Your task to perform on an android device: Look up the best rated bike seats on Target Image 0: 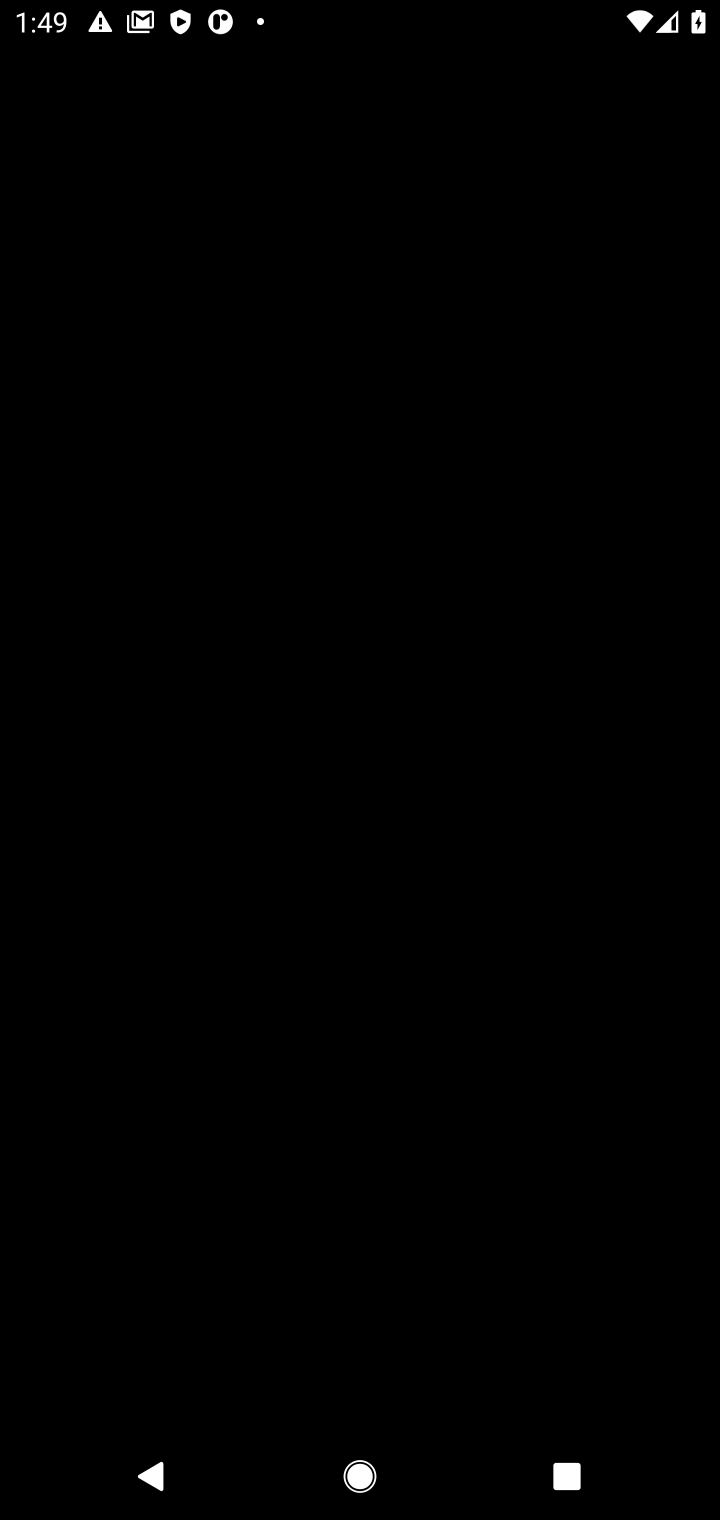
Step 0: press home button
Your task to perform on an android device: Look up the best rated bike seats on Target Image 1: 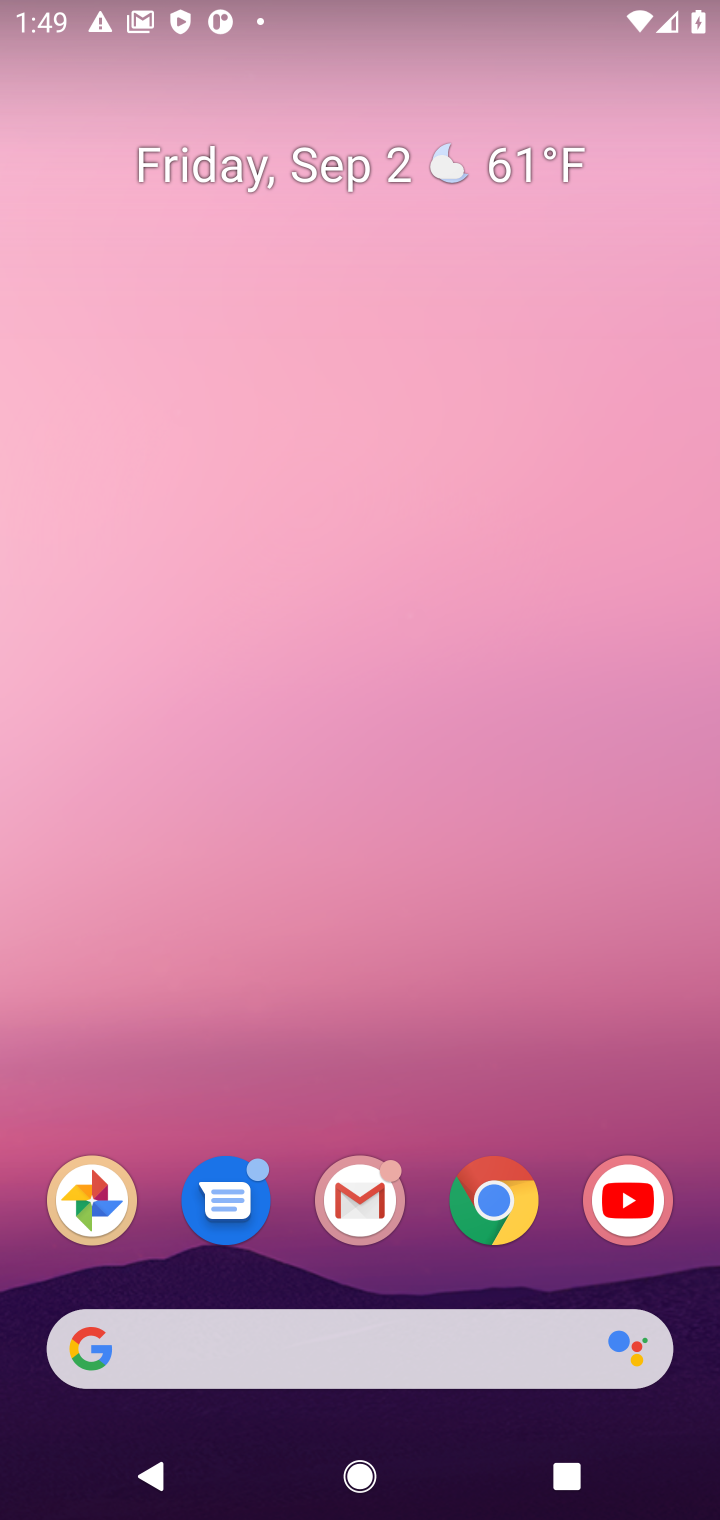
Step 1: click (493, 1197)
Your task to perform on an android device: Look up the best rated bike seats on Target Image 2: 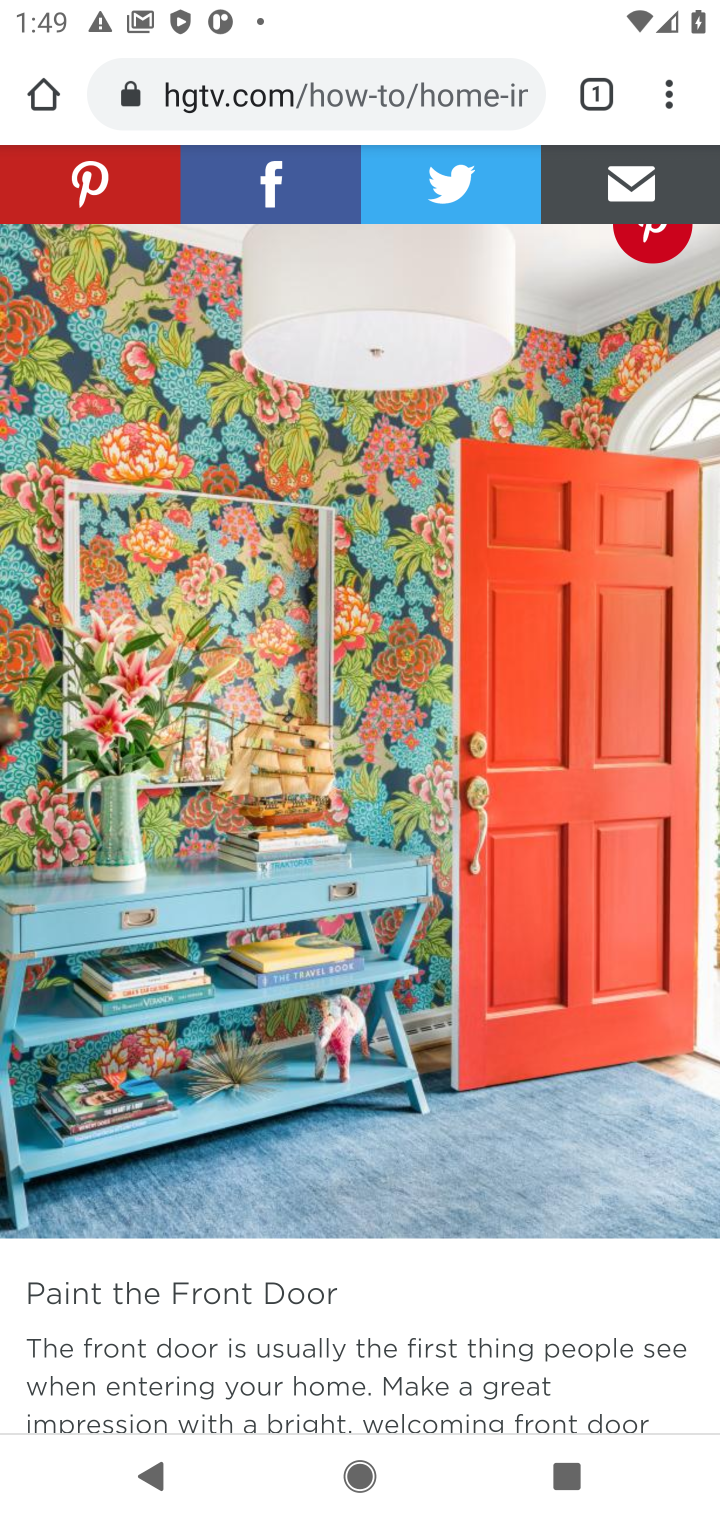
Step 2: drag from (533, 845) to (455, 92)
Your task to perform on an android device: Look up the best rated bike seats on Target Image 3: 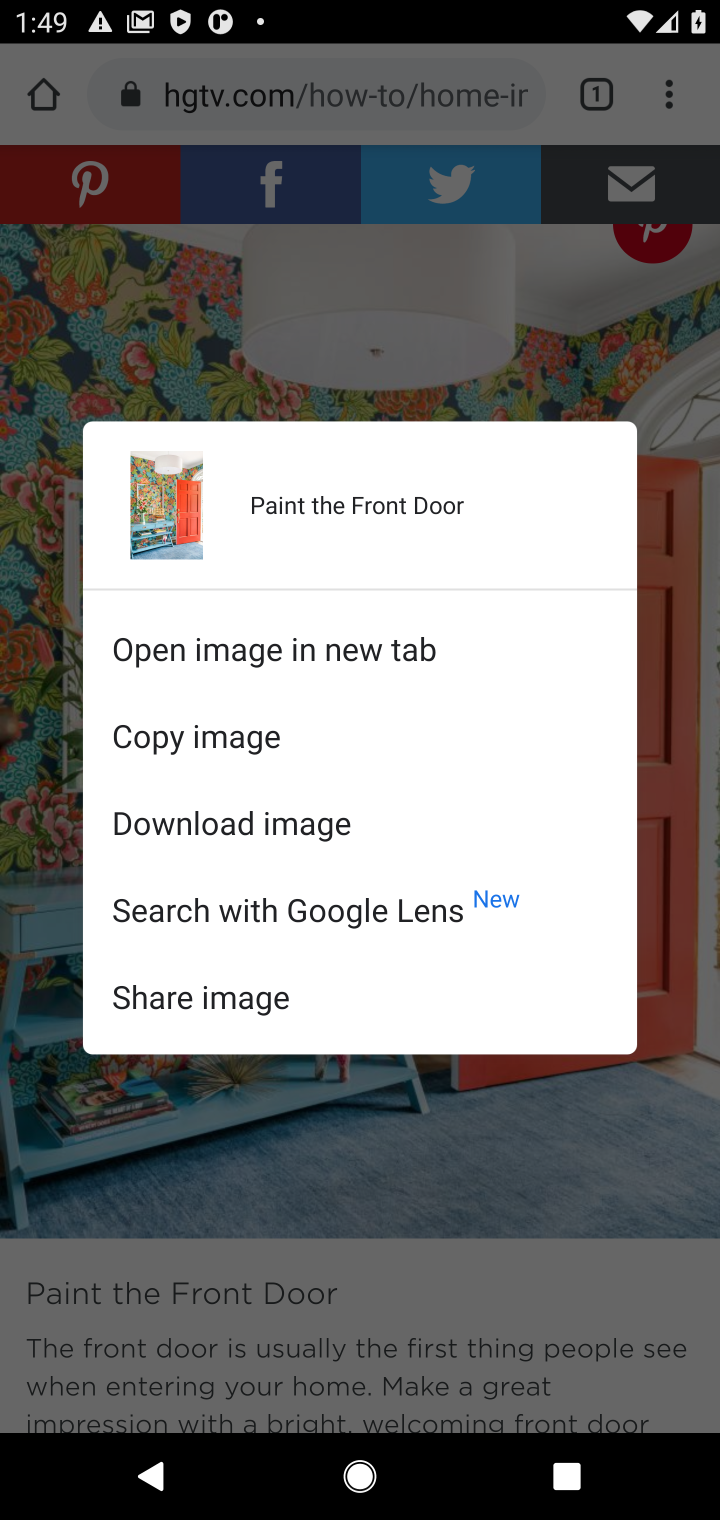
Step 3: click (429, 94)
Your task to perform on an android device: Look up the best rated bike seats on Target Image 4: 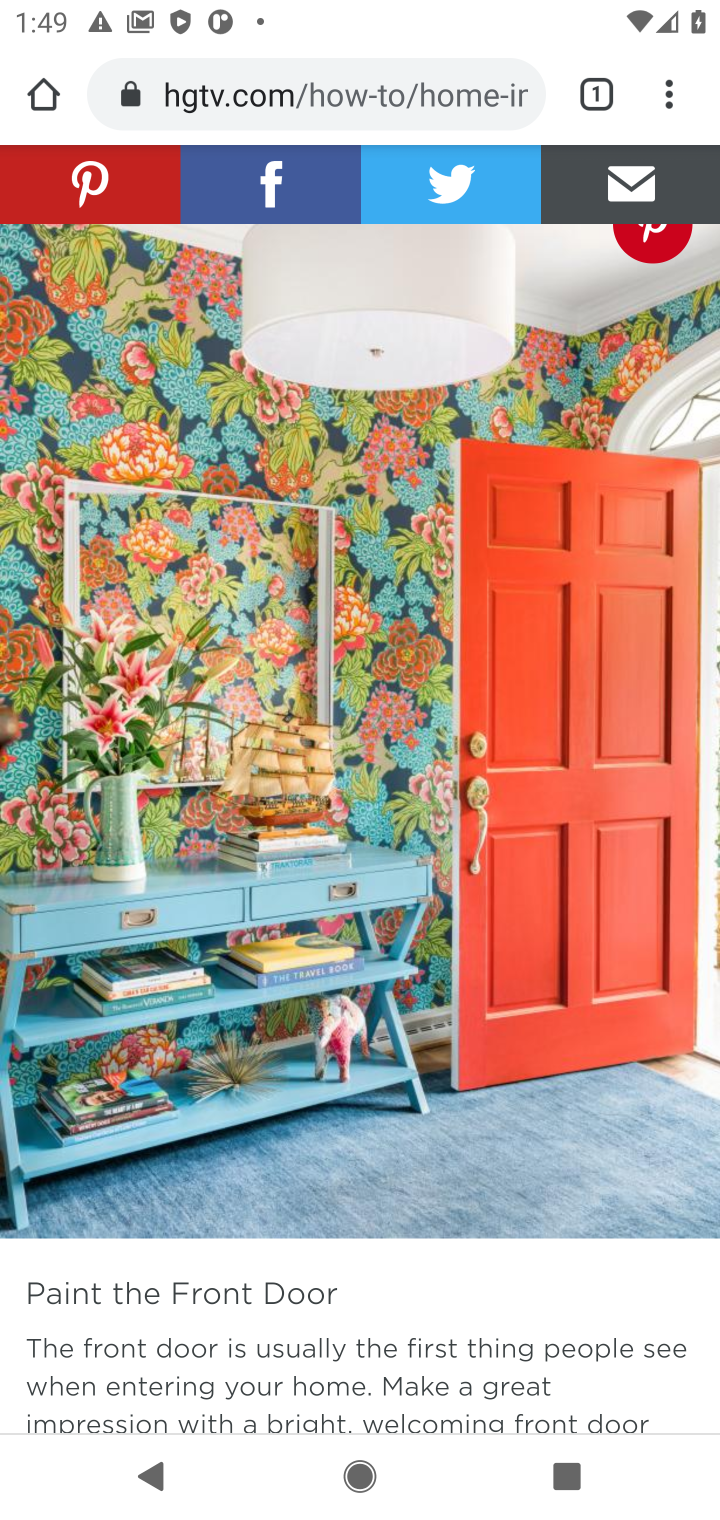
Step 4: click (373, 88)
Your task to perform on an android device: Look up the best rated bike seats on Target Image 5: 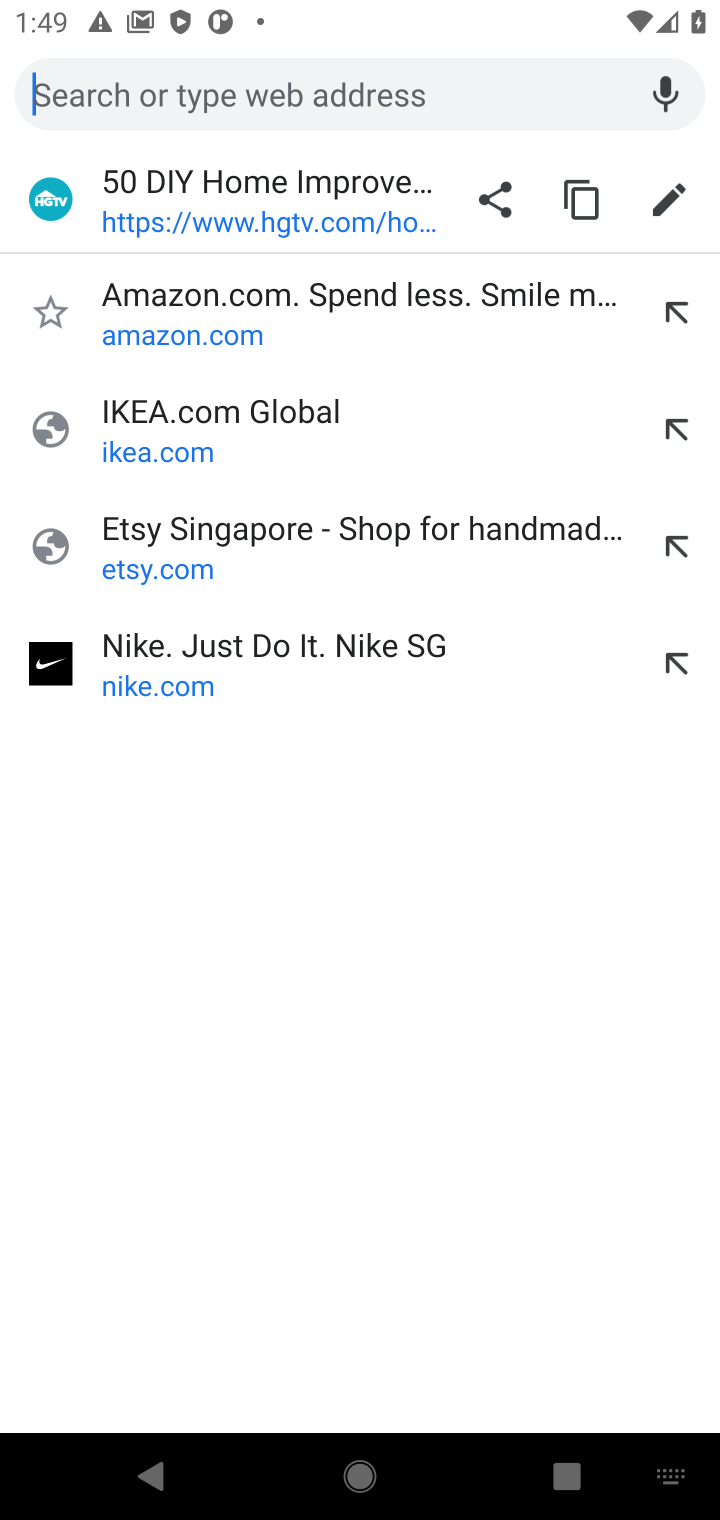
Step 5: click (364, 90)
Your task to perform on an android device: Look up the best rated bike seats on Target Image 6: 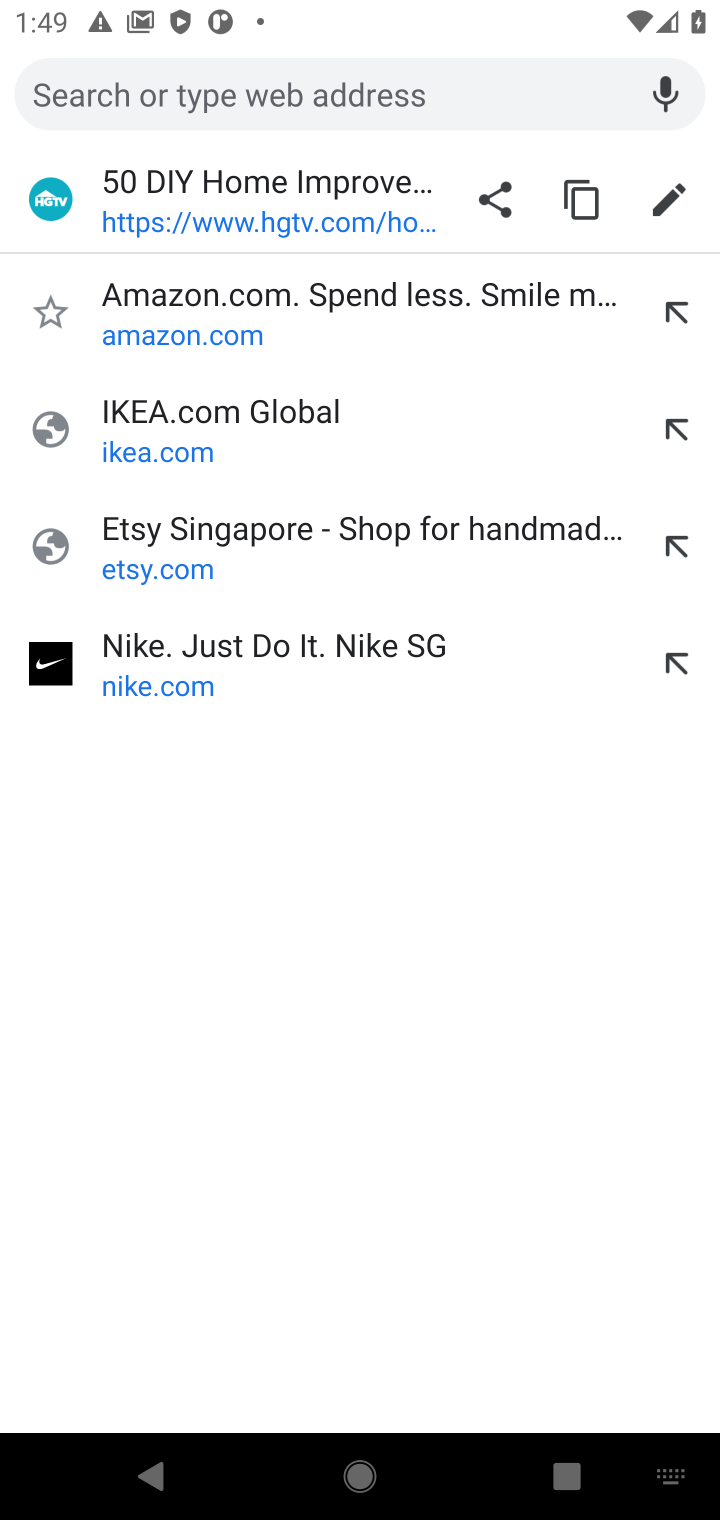
Step 6: type "Target"
Your task to perform on an android device: Look up the best rated bike seats on Target Image 7: 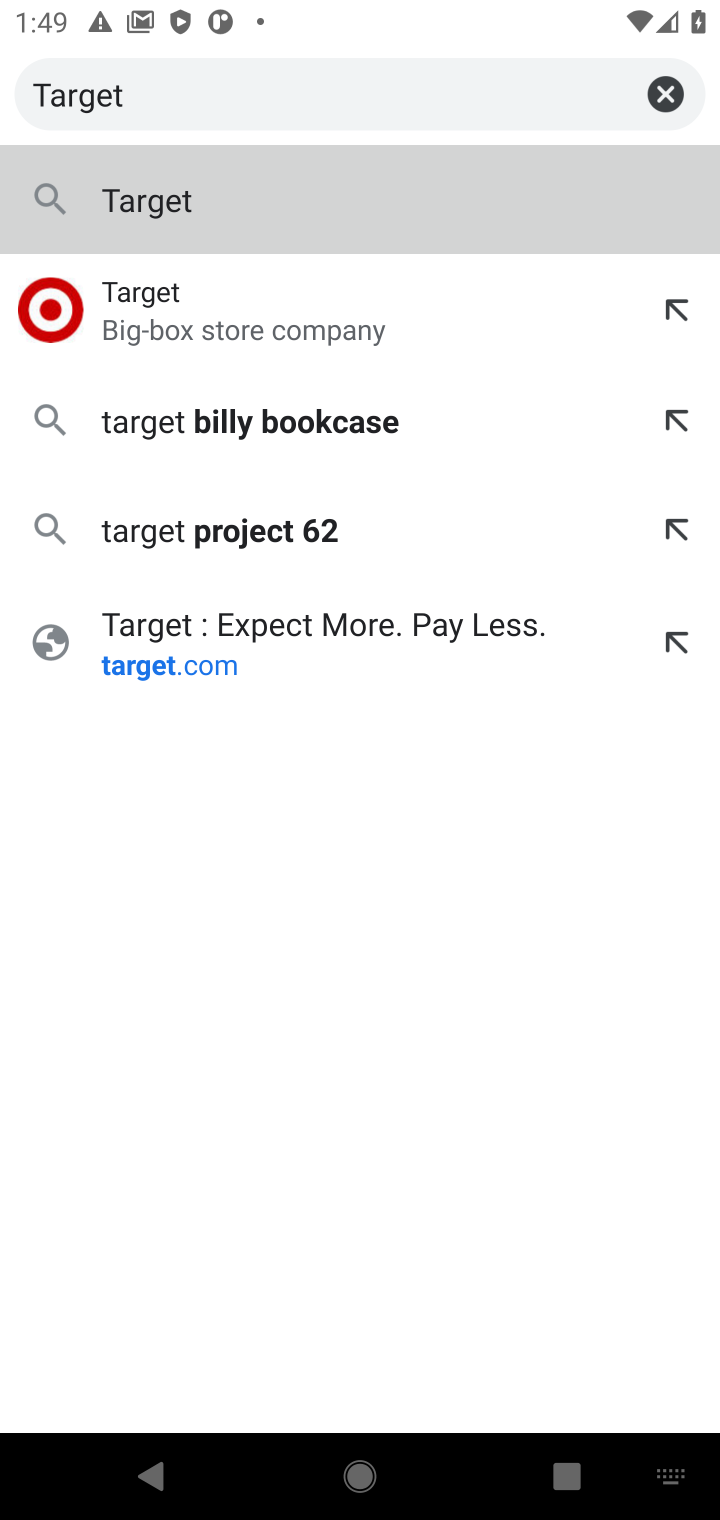
Step 7: press enter
Your task to perform on an android device: Look up the best rated bike seats on Target Image 8: 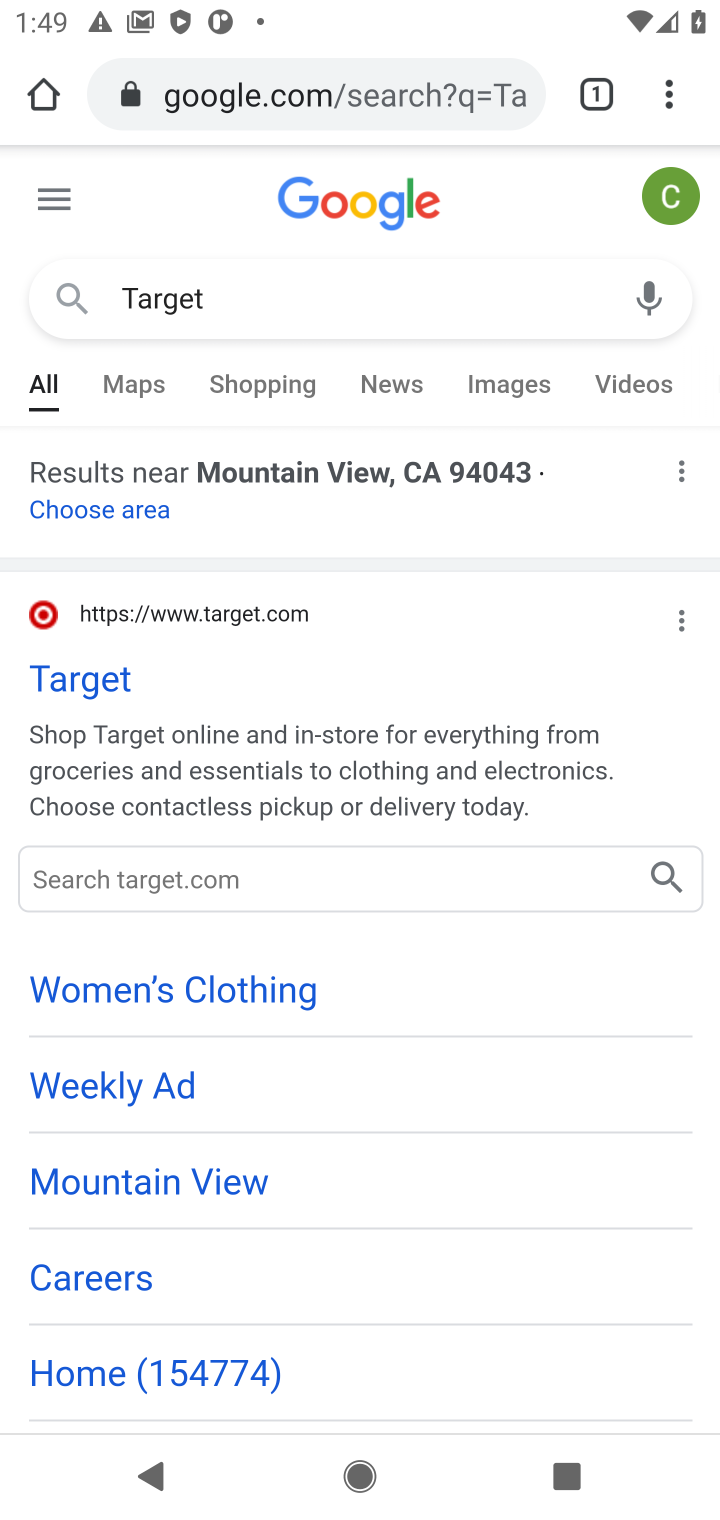
Step 8: click (58, 670)
Your task to perform on an android device: Look up the best rated bike seats on Target Image 9: 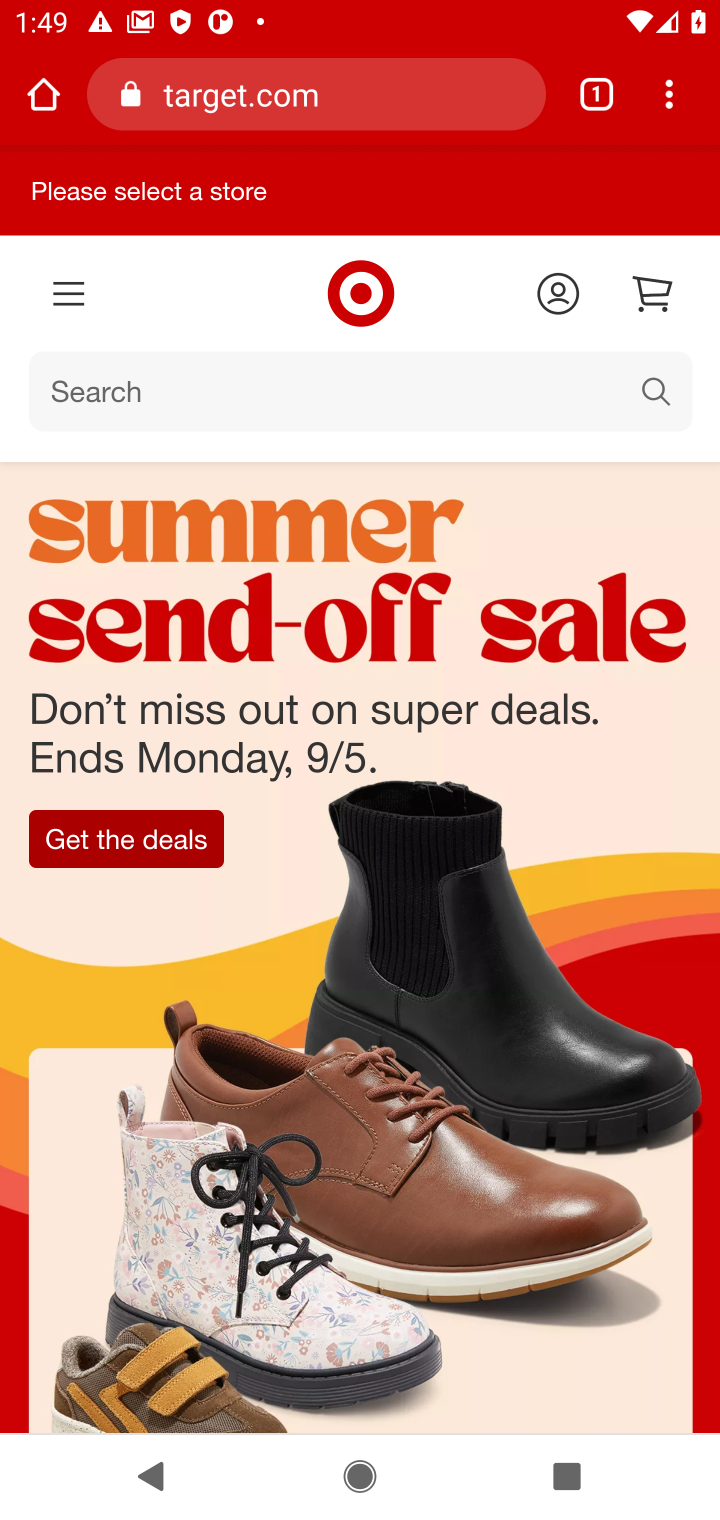
Step 9: click (659, 391)
Your task to perform on an android device: Look up the best rated bike seats on Target Image 10: 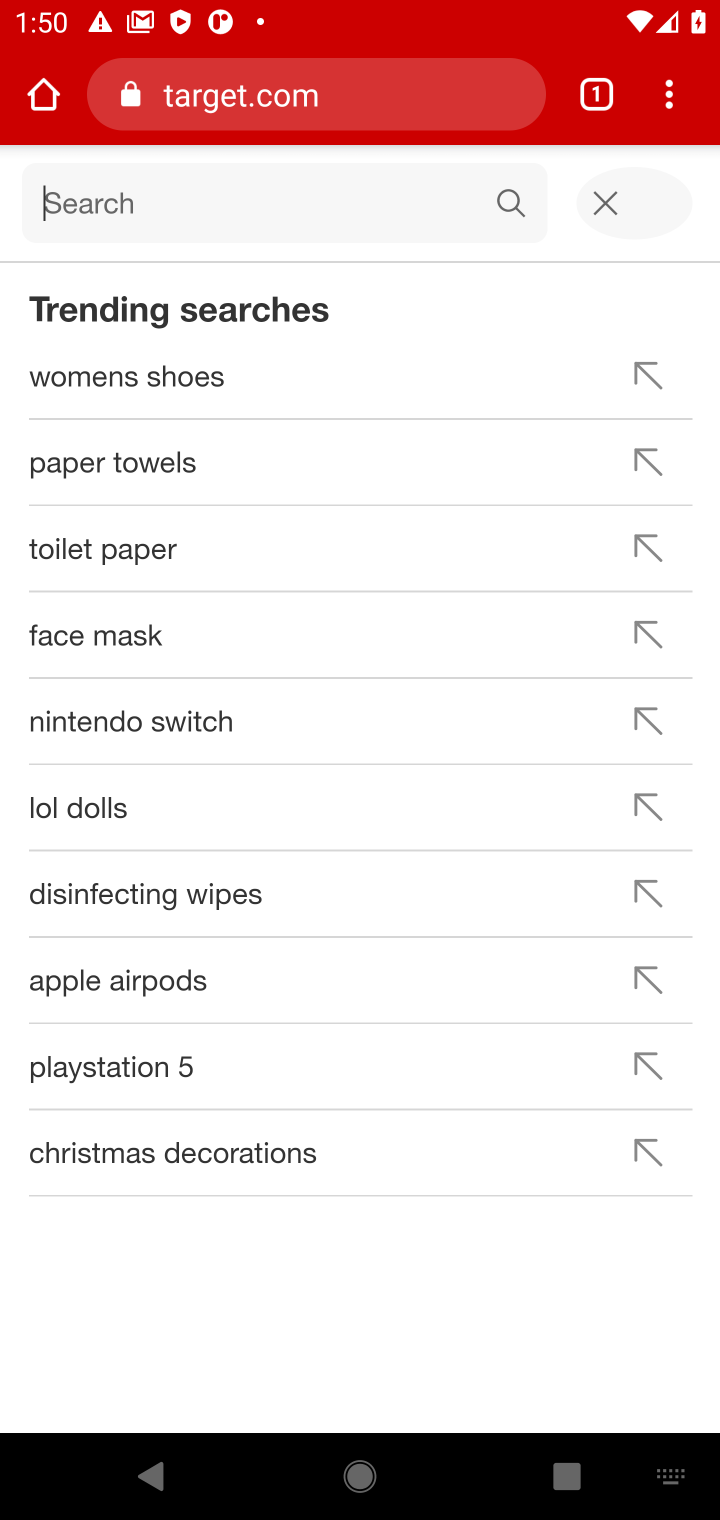
Step 10: type "bike seats"
Your task to perform on an android device: Look up the best rated bike seats on Target Image 11: 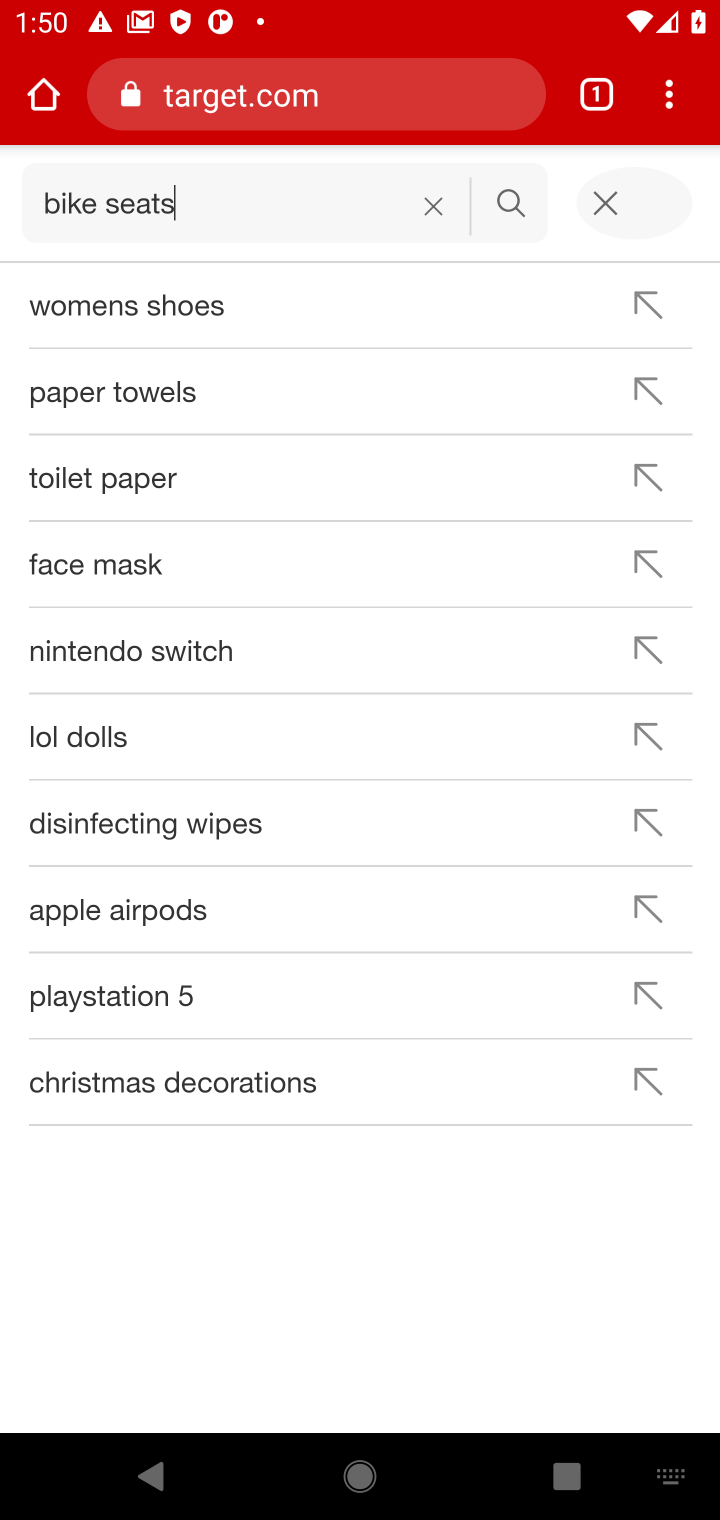
Step 11: press enter
Your task to perform on an android device: Look up the best rated bike seats on Target Image 12: 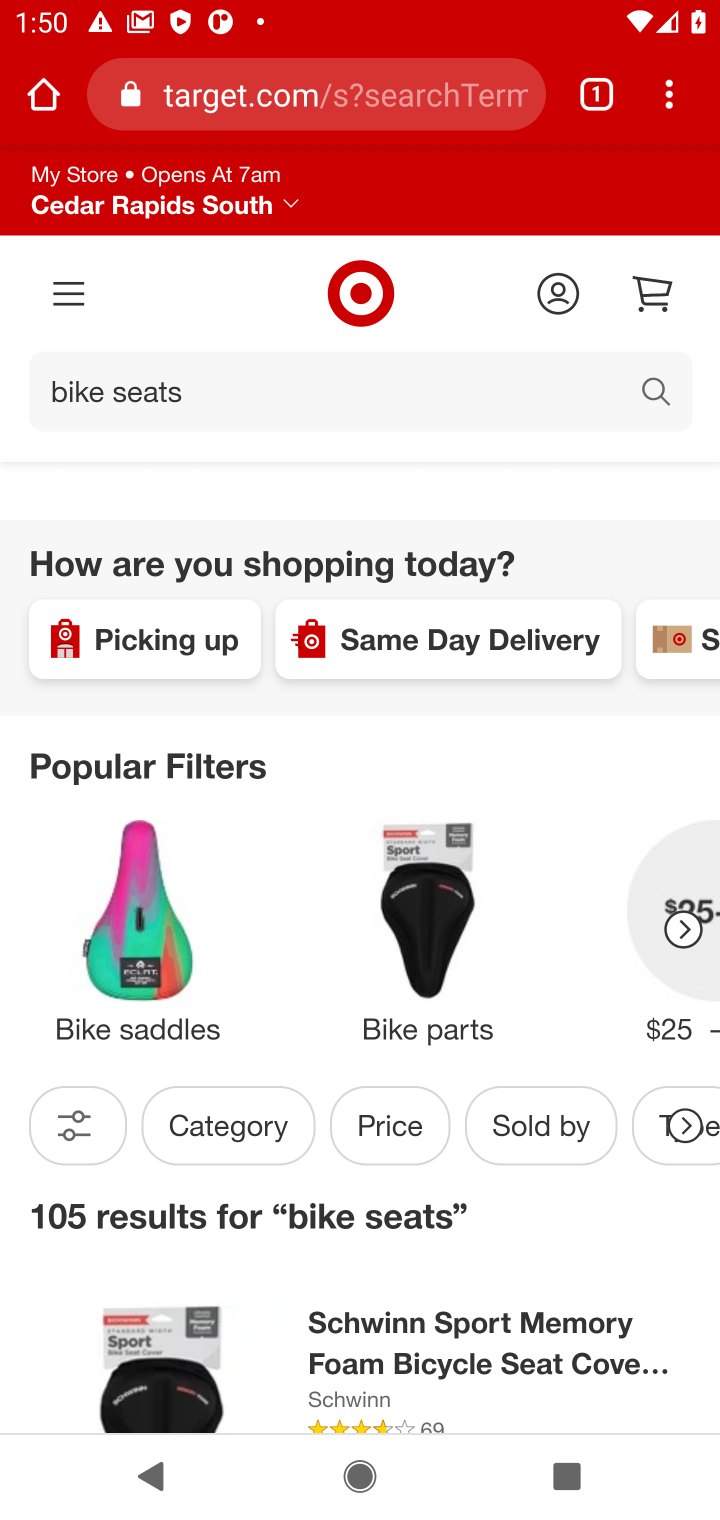
Step 12: task complete